Your task to perform on an android device: turn off data saver in the chrome app Image 0: 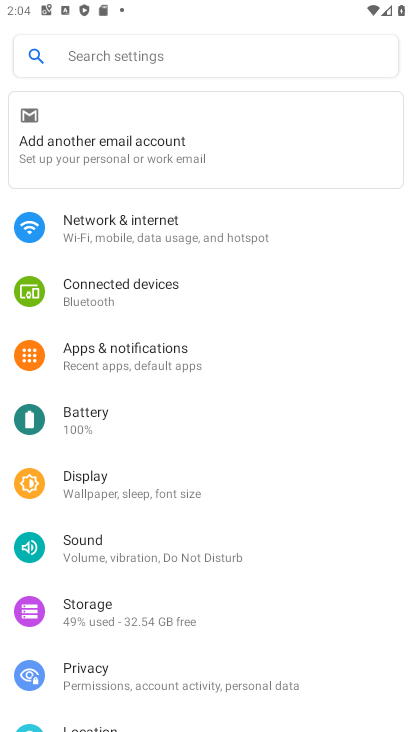
Step 0: press home button
Your task to perform on an android device: turn off data saver in the chrome app Image 1: 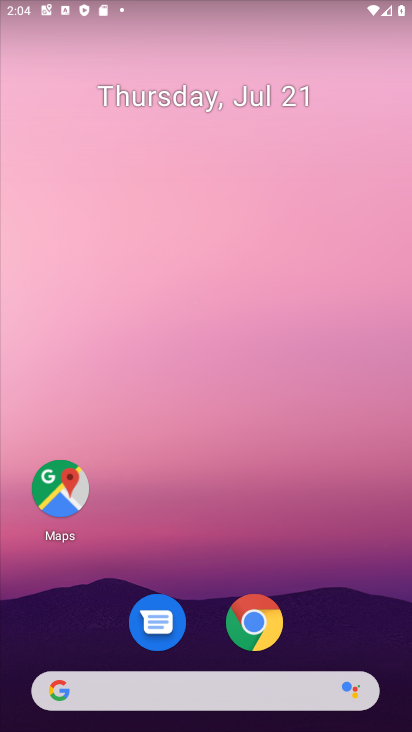
Step 1: click (265, 607)
Your task to perform on an android device: turn off data saver in the chrome app Image 2: 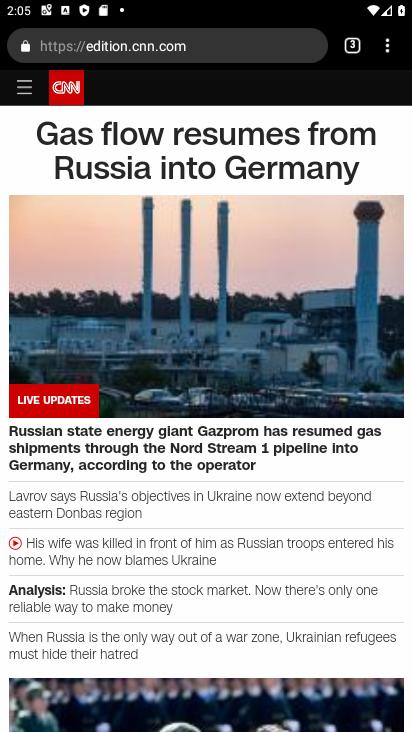
Step 2: click (384, 52)
Your task to perform on an android device: turn off data saver in the chrome app Image 3: 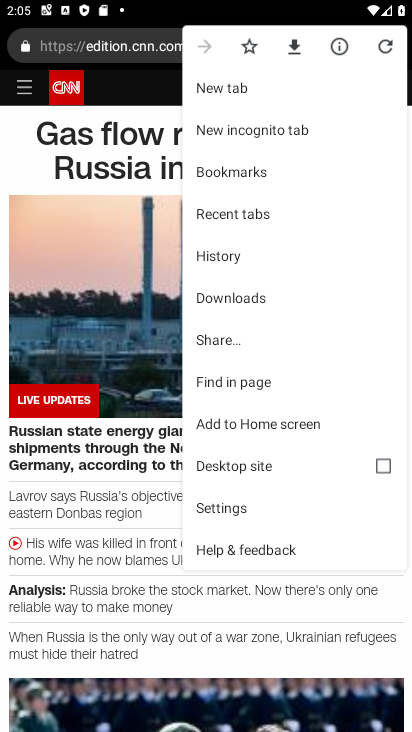
Step 3: click (233, 502)
Your task to perform on an android device: turn off data saver in the chrome app Image 4: 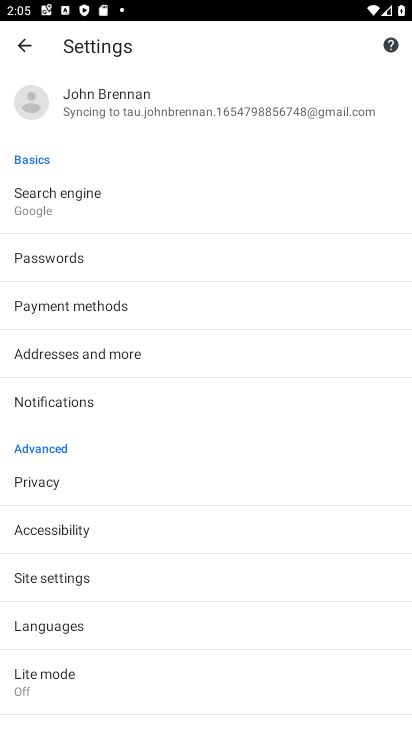
Step 4: click (65, 673)
Your task to perform on an android device: turn off data saver in the chrome app Image 5: 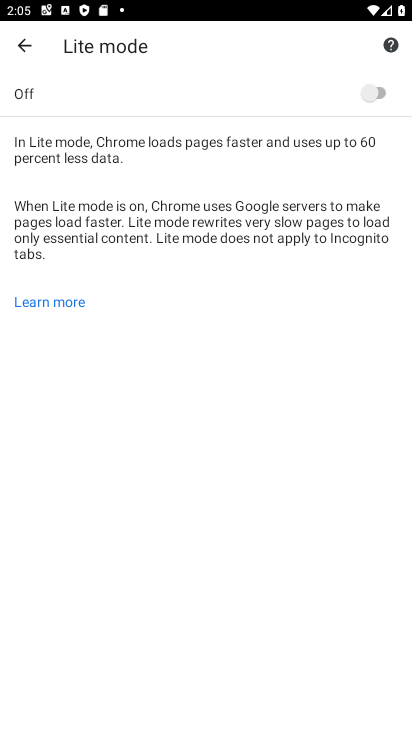
Step 5: click (372, 83)
Your task to perform on an android device: turn off data saver in the chrome app Image 6: 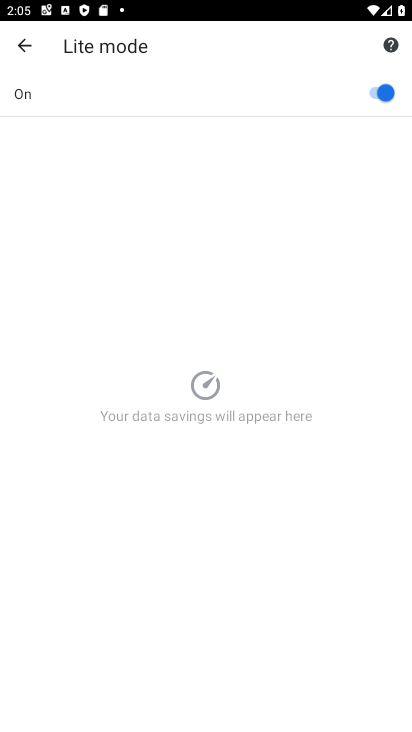
Step 6: click (372, 83)
Your task to perform on an android device: turn off data saver in the chrome app Image 7: 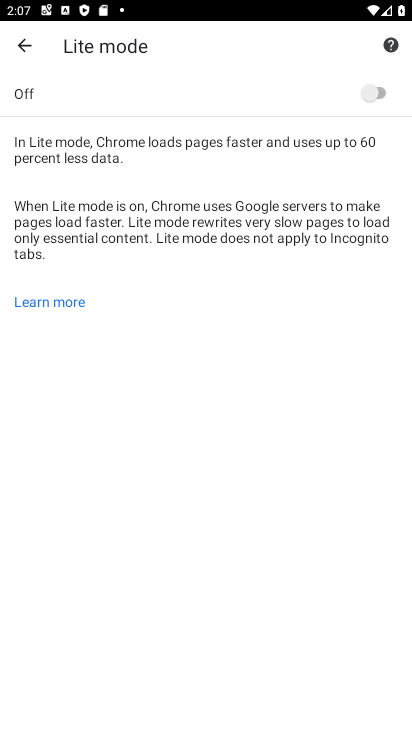
Step 7: task complete